Your task to perform on an android device: What's the weather going to be this weekend? Image 0: 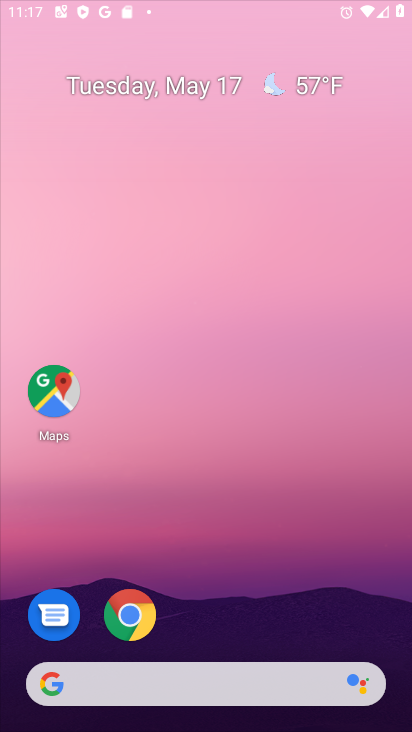
Step 0: drag from (302, 578) to (307, 115)
Your task to perform on an android device: What's the weather going to be this weekend? Image 1: 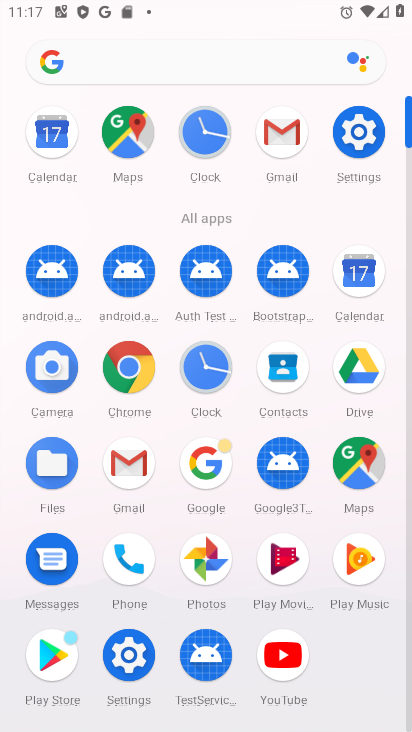
Step 1: press home button
Your task to perform on an android device: What's the weather going to be this weekend? Image 2: 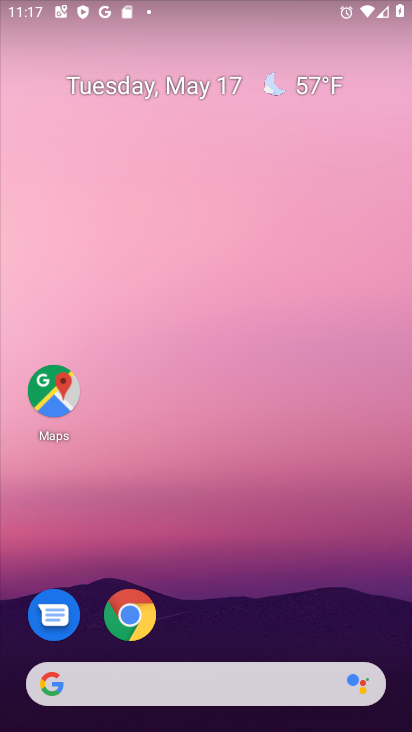
Step 2: click (313, 93)
Your task to perform on an android device: What's the weather going to be this weekend? Image 3: 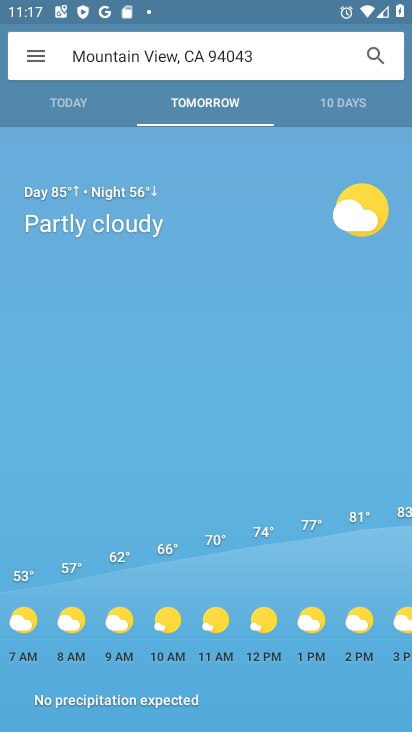
Step 3: click (315, 114)
Your task to perform on an android device: What's the weather going to be this weekend? Image 4: 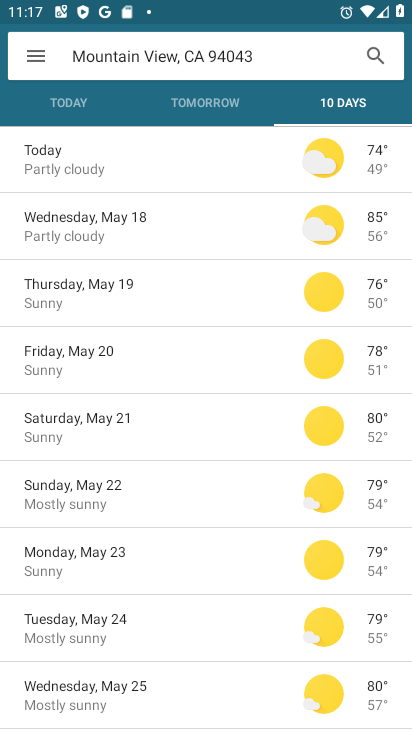
Step 4: task complete